Your task to perform on an android device: Turn off the flashlight Image 0: 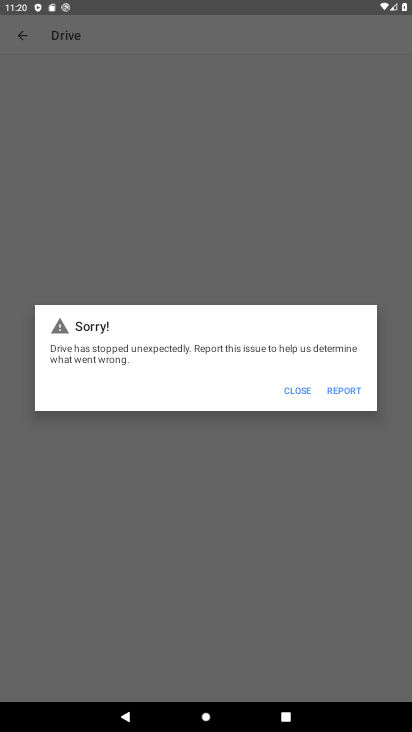
Step 0: press home button
Your task to perform on an android device: Turn off the flashlight Image 1: 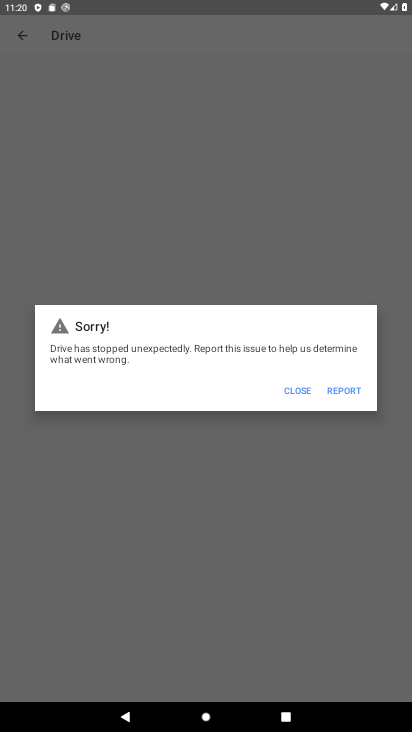
Step 1: press home button
Your task to perform on an android device: Turn off the flashlight Image 2: 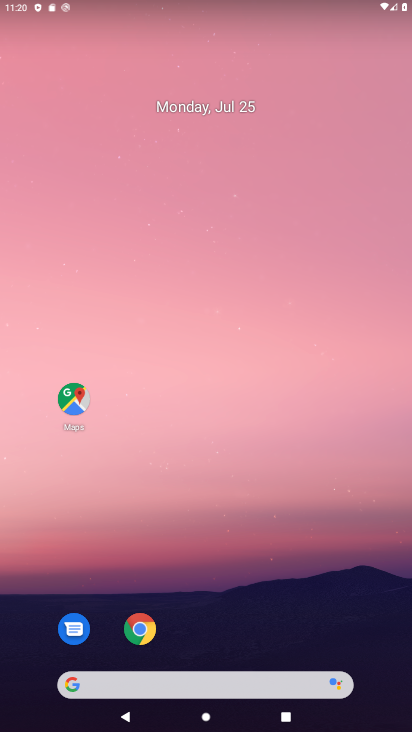
Step 2: drag from (259, 388) to (383, 59)
Your task to perform on an android device: Turn off the flashlight Image 3: 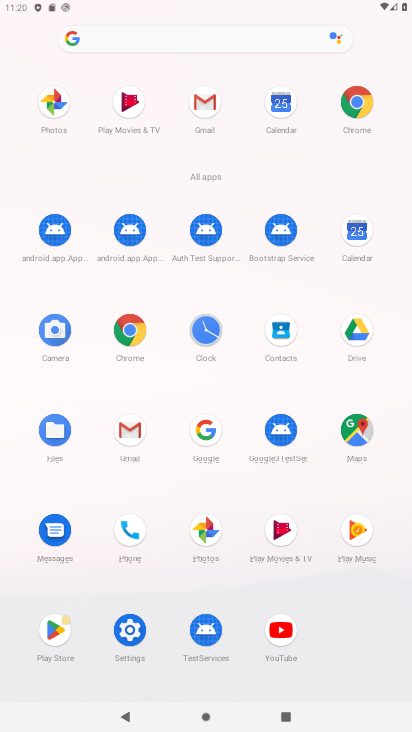
Step 3: click (131, 620)
Your task to perform on an android device: Turn off the flashlight Image 4: 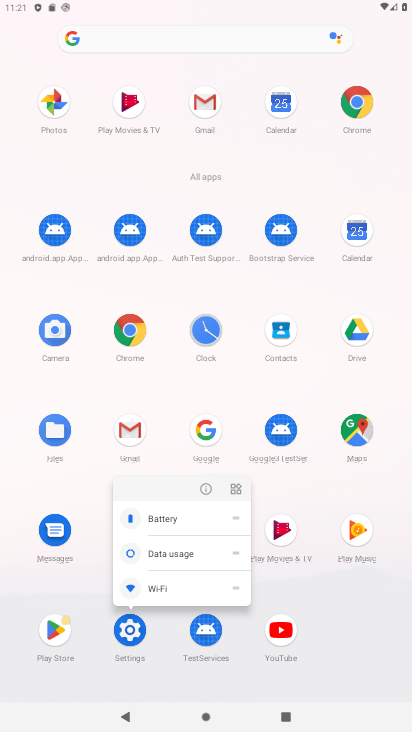
Step 4: click (208, 479)
Your task to perform on an android device: Turn off the flashlight Image 5: 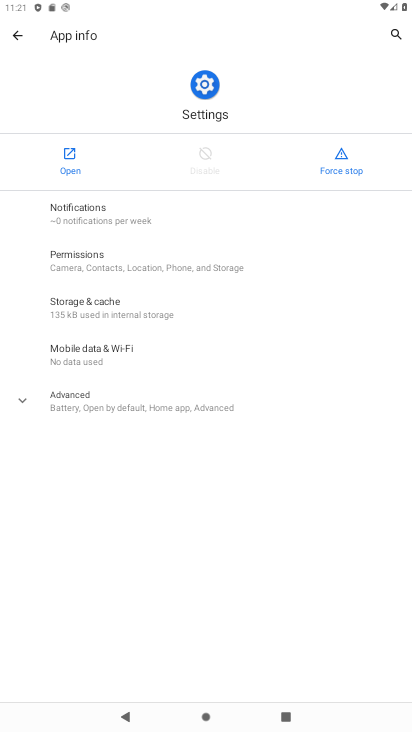
Step 5: click (61, 160)
Your task to perform on an android device: Turn off the flashlight Image 6: 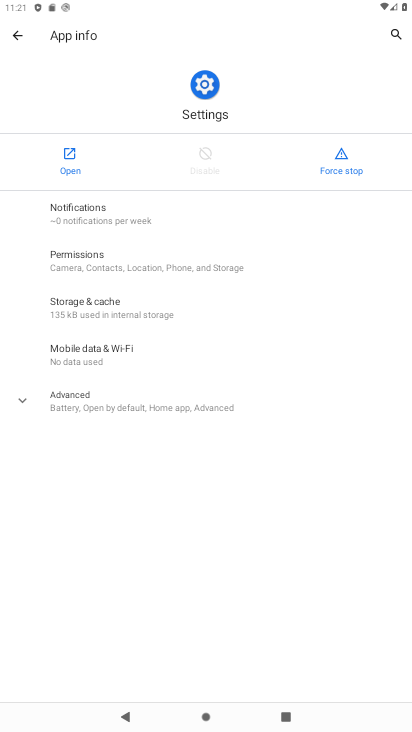
Step 6: click (61, 160)
Your task to perform on an android device: Turn off the flashlight Image 7: 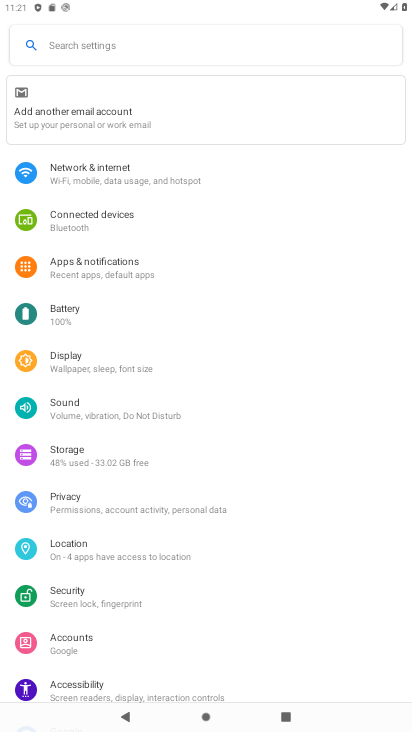
Step 7: click (72, 46)
Your task to perform on an android device: Turn off the flashlight Image 8: 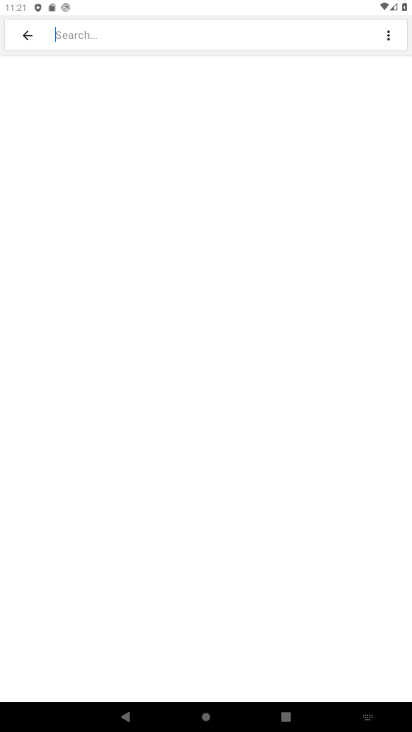
Step 8: type "flashlight"
Your task to perform on an android device: Turn off the flashlight Image 9: 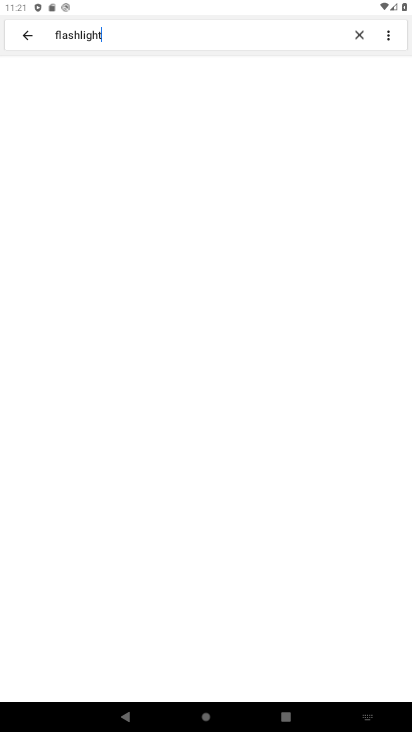
Step 9: type ""
Your task to perform on an android device: Turn off the flashlight Image 10: 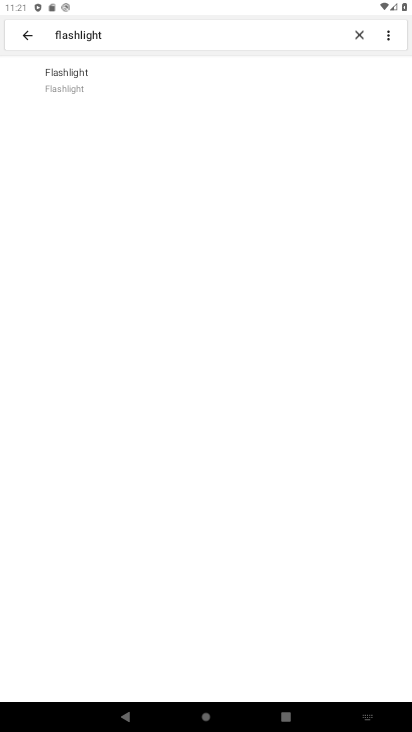
Step 10: click (152, 86)
Your task to perform on an android device: Turn off the flashlight Image 11: 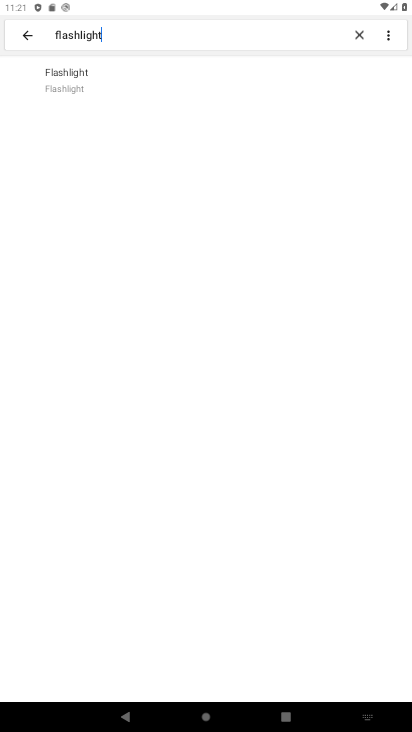
Step 11: click (62, 71)
Your task to perform on an android device: Turn off the flashlight Image 12: 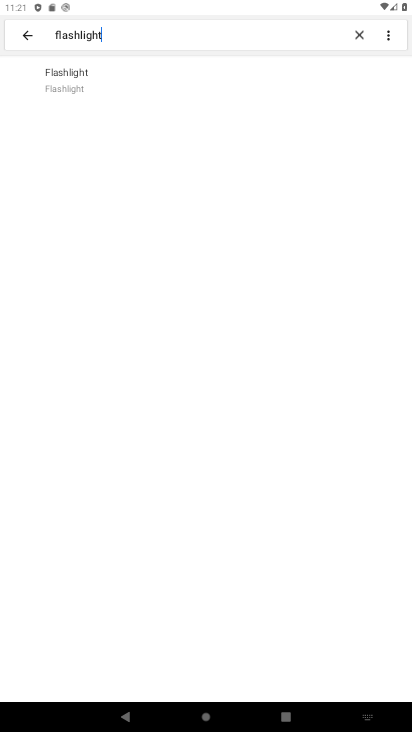
Step 12: click (131, 88)
Your task to perform on an android device: Turn off the flashlight Image 13: 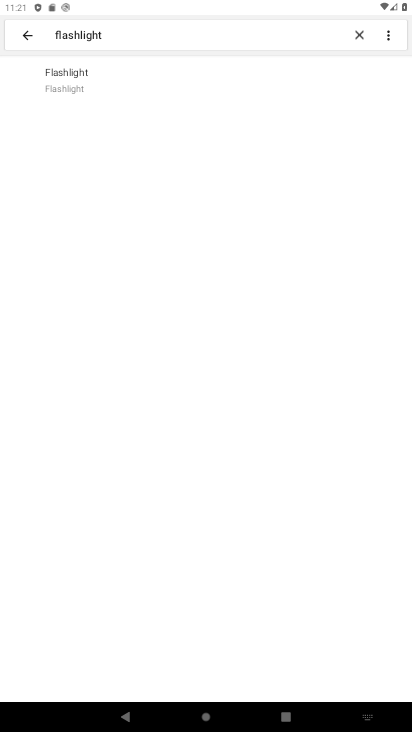
Step 13: task complete